Your task to perform on an android device: toggle location history Image 0: 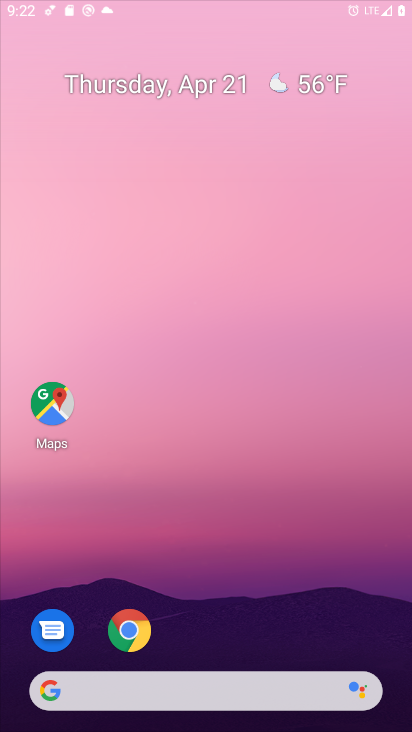
Step 0: click (261, 111)
Your task to perform on an android device: toggle location history Image 1: 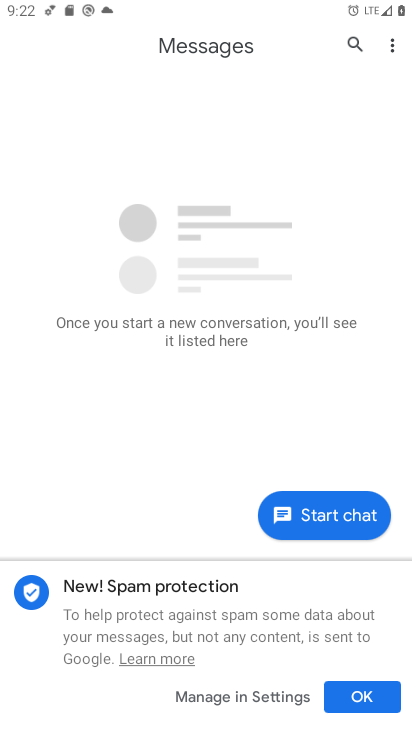
Step 1: press home button
Your task to perform on an android device: toggle location history Image 2: 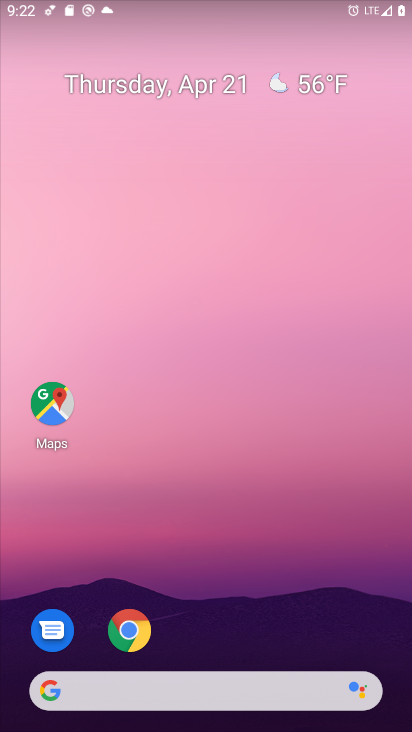
Step 2: drag from (178, 587) to (201, 111)
Your task to perform on an android device: toggle location history Image 3: 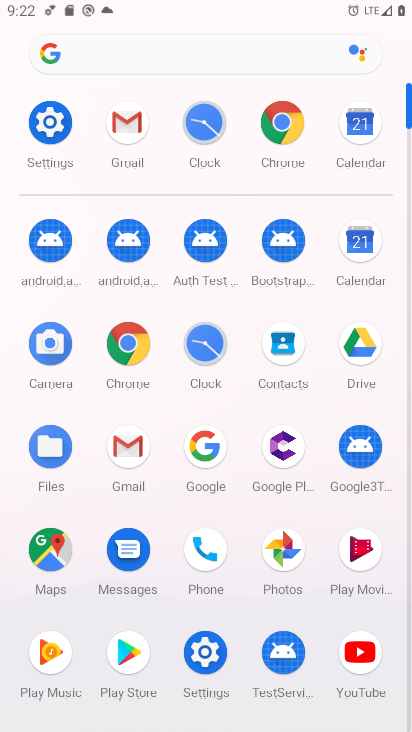
Step 3: click (199, 671)
Your task to perform on an android device: toggle location history Image 4: 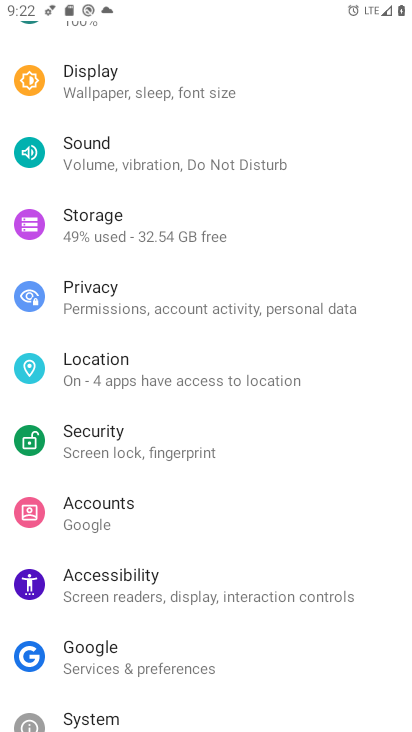
Step 4: click (127, 380)
Your task to perform on an android device: toggle location history Image 5: 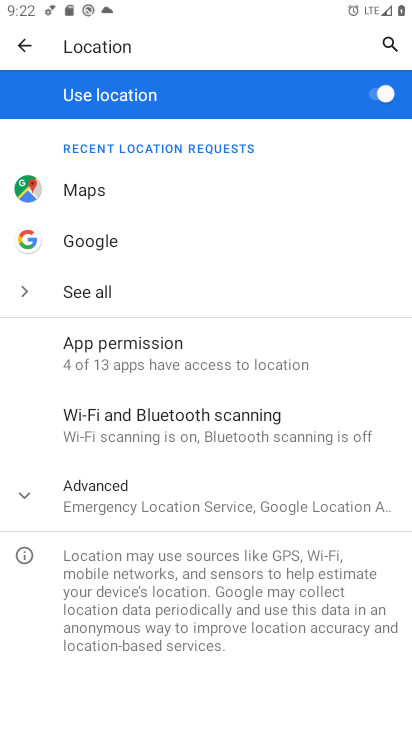
Step 5: click (82, 485)
Your task to perform on an android device: toggle location history Image 6: 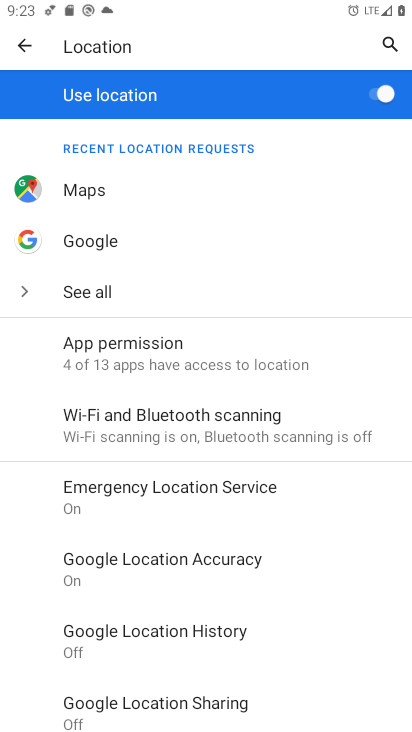
Step 6: click (136, 630)
Your task to perform on an android device: toggle location history Image 7: 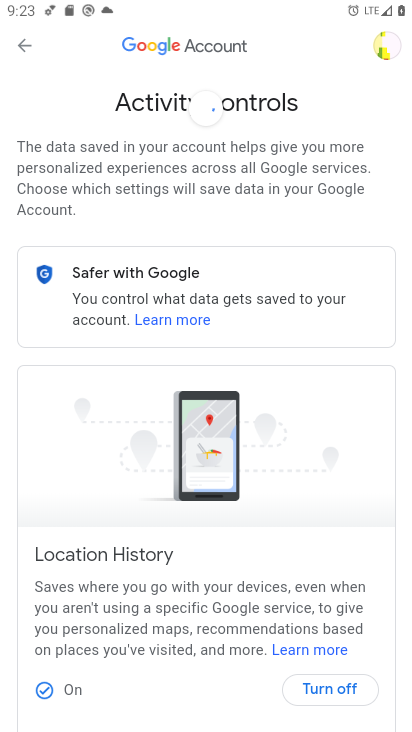
Step 7: drag from (272, 601) to (300, 444)
Your task to perform on an android device: toggle location history Image 8: 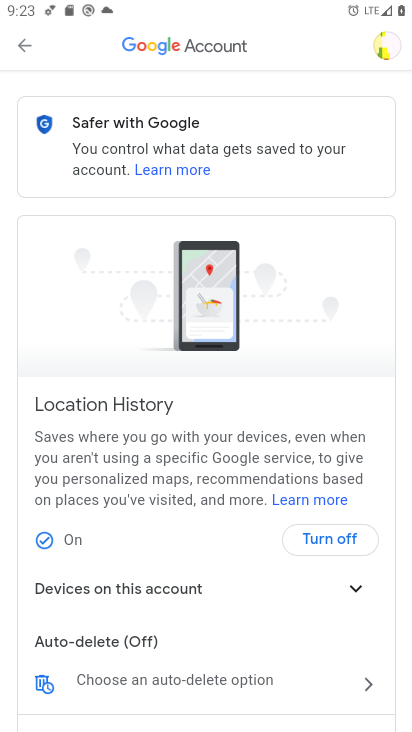
Step 8: click (310, 536)
Your task to perform on an android device: toggle location history Image 9: 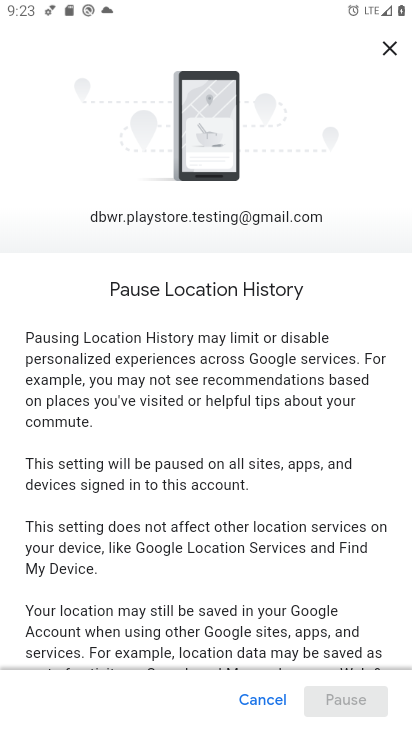
Step 9: drag from (296, 539) to (331, 171)
Your task to perform on an android device: toggle location history Image 10: 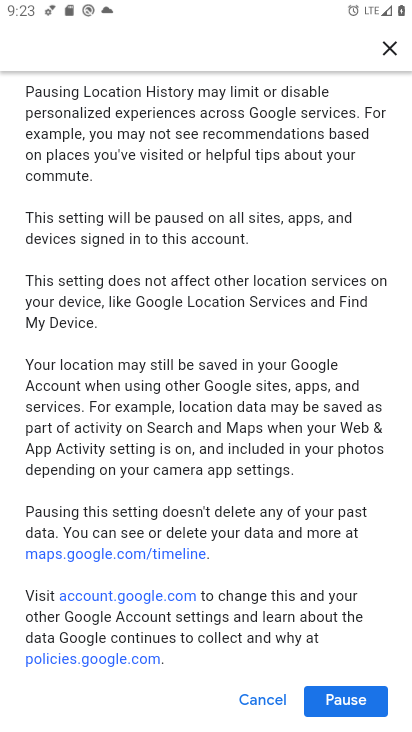
Step 10: click (336, 704)
Your task to perform on an android device: toggle location history Image 11: 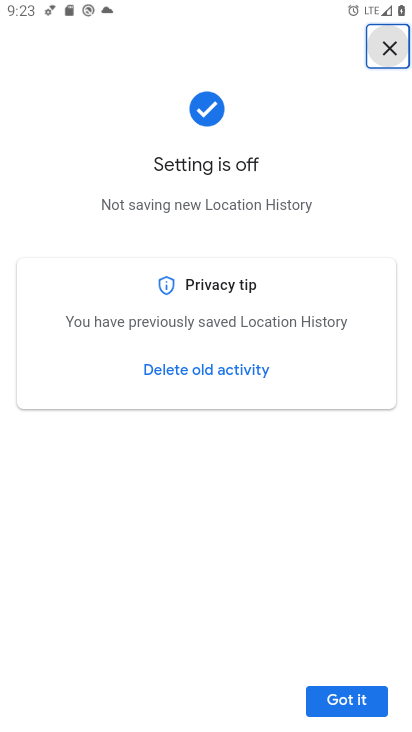
Step 11: click (351, 700)
Your task to perform on an android device: toggle location history Image 12: 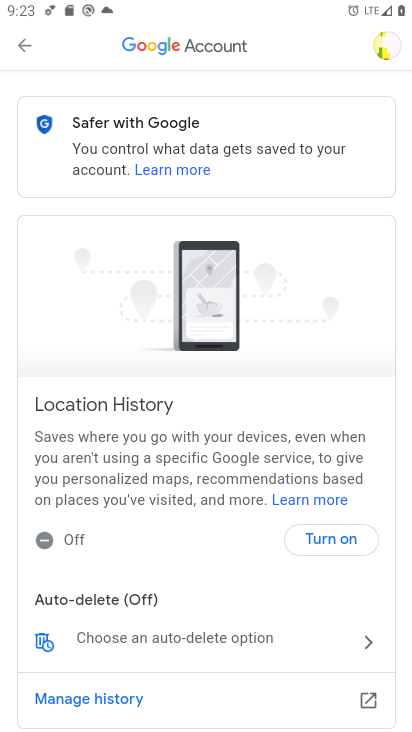
Step 12: task complete